Your task to perform on an android device: toggle notifications settings in the gmail app Image 0: 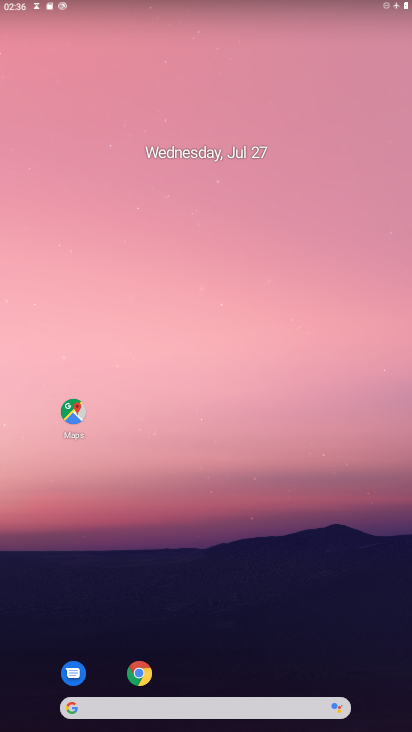
Step 0: drag from (227, 669) to (215, 253)
Your task to perform on an android device: toggle notifications settings in the gmail app Image 1: 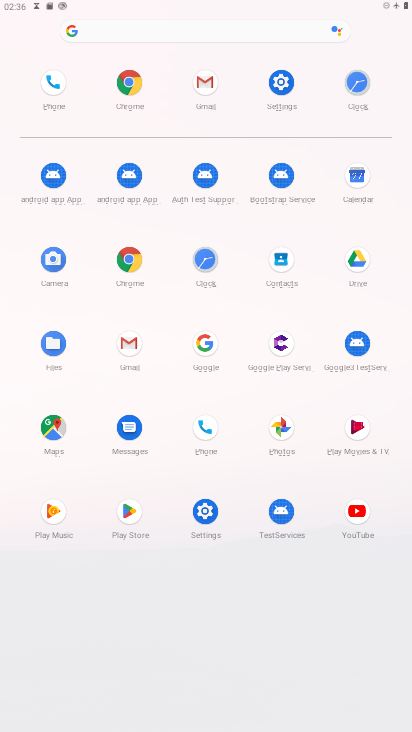
Step 1: click (135, 342)
Your task to perform on an android device: toggle notifications settings in the gmail app Image 2: 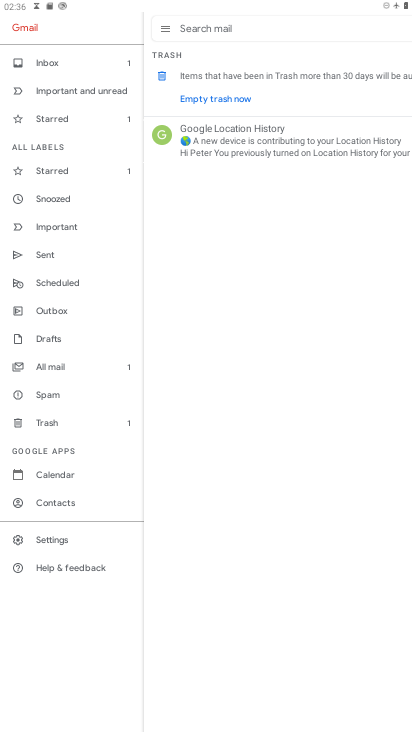
Step 2: click (66, 540)
Your task to perform on an android device: toggle notifications settings in the gmail app Image 3: 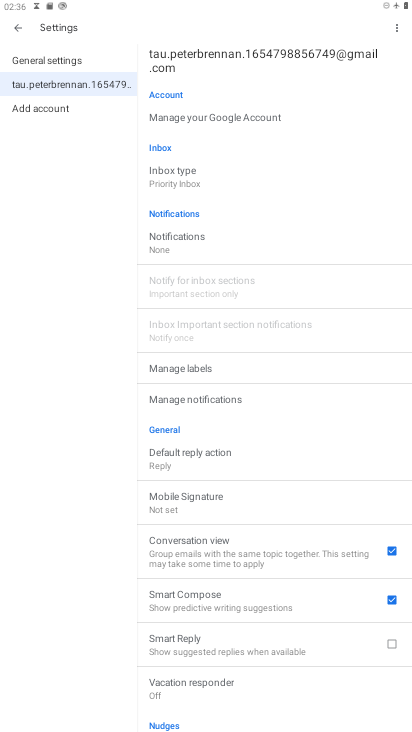
Step 3: click (202, 234)
Your task to perform on an android device: toggle notifications settings in the gmail app Image 4: 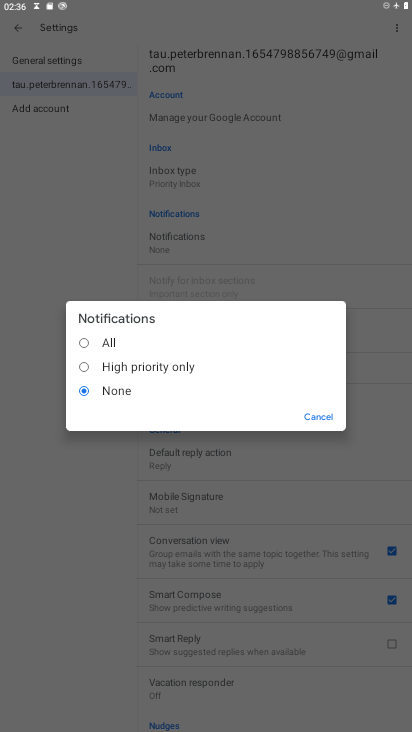
Step 4: click (117, 348)
Your task to perform on an android device: toggle notifications settings in the gmail app Image 5: 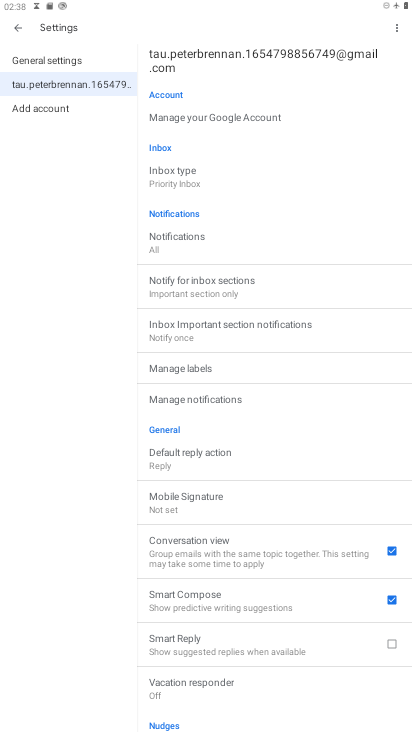
Step 5: task complete